Your task to perform on an android device: What is the news today? Image 0: 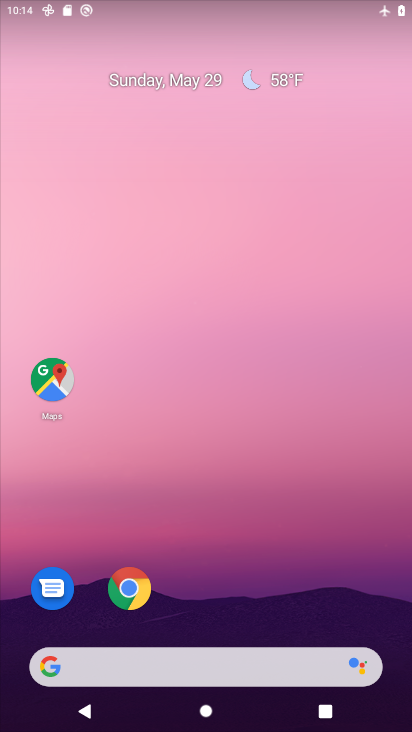
Step 0: drag from (0, 209) to (411, 647)
Your task to perform on an android device: What is the news today? Image 1: 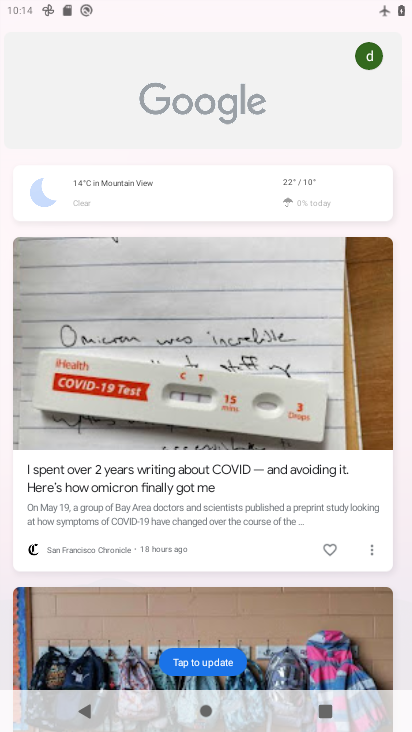
Step 1: drag from (325, 468) to (405, 491)
Your task to perform on an android device: What is the news today? Image 2: 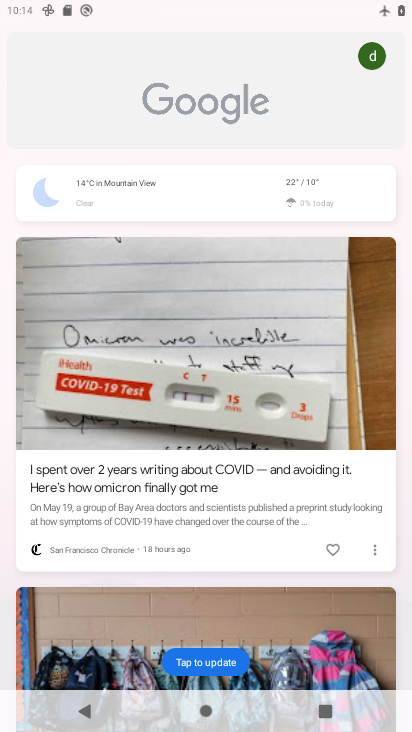
Step 2: drag from (211, 534) to (226, 217)
Your task to perform on an android device: What is the news today? Image 3: 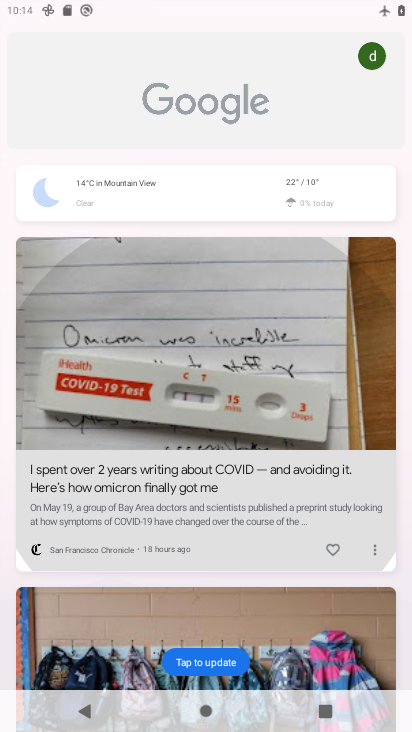
Step 3: drag from (215, 530) to (191, 218)
Your task to perform on an android device: What is the news today? Image 4: 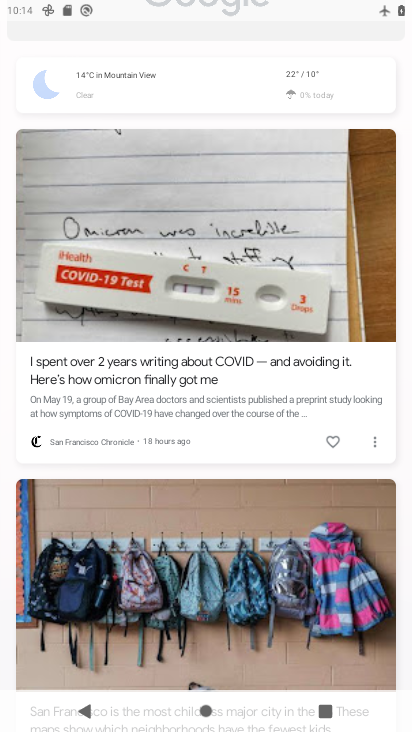
Step 4: drag from (208, 489) to (208, 230)
Your task to perform on an android device: What is the news today? Image 5: 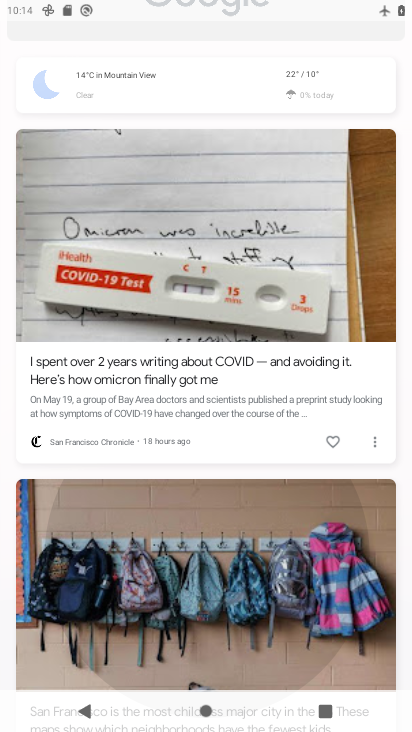
Step 5: drag from (229, 430) to (250, 232)
Your task to perform on an android device: What is the news today? Image 6: 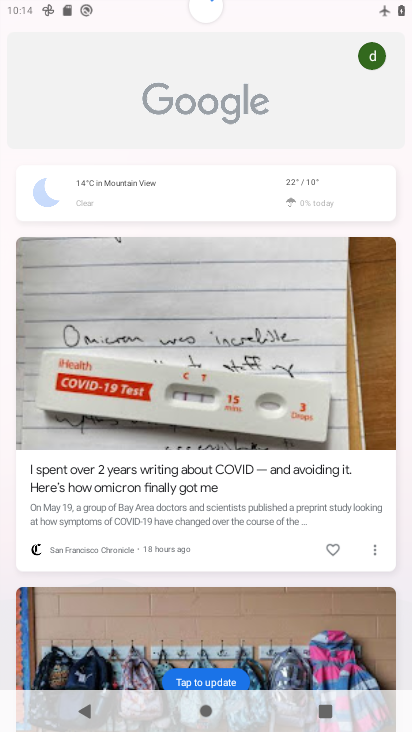
Step 6: drag from (184, 315) to (176, 264)
Your task to perform on an android device: What is the news today? Image 7: 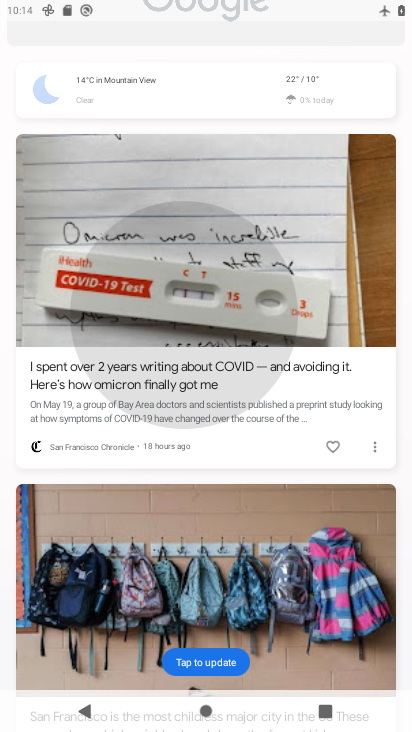
Step 7: click (208, 226)
Your task to perform on an android device: What is the news today? Image 8: 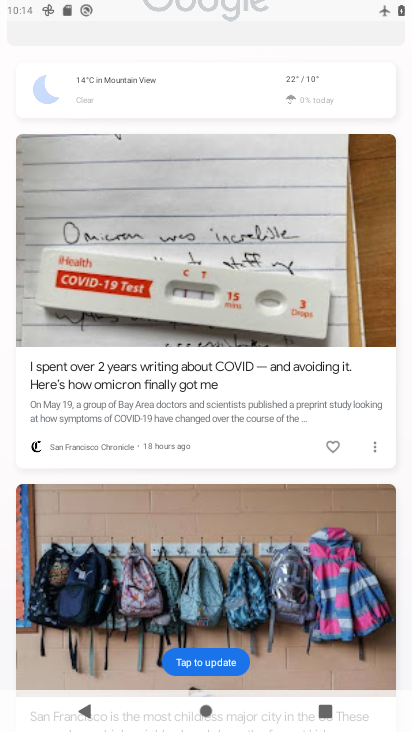
Step 8: task complete